Your task to perform on an android device: turn pop-ups off in chrome Image 0: 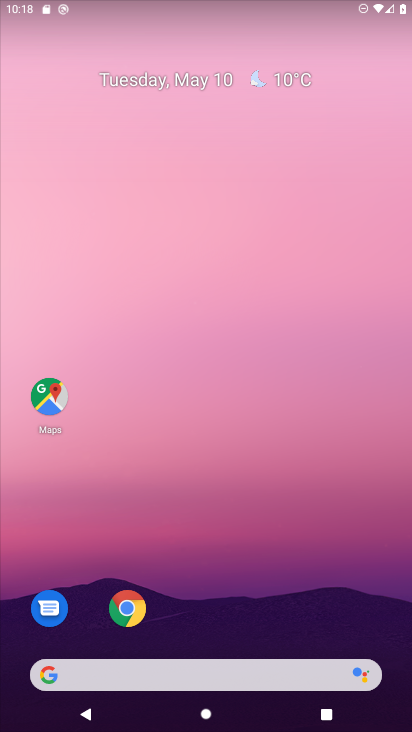
Step 0: drag from (355, 603) to (308, 75)
Your task to perform on an android device: turn pop-ups off in chrome Image 1: 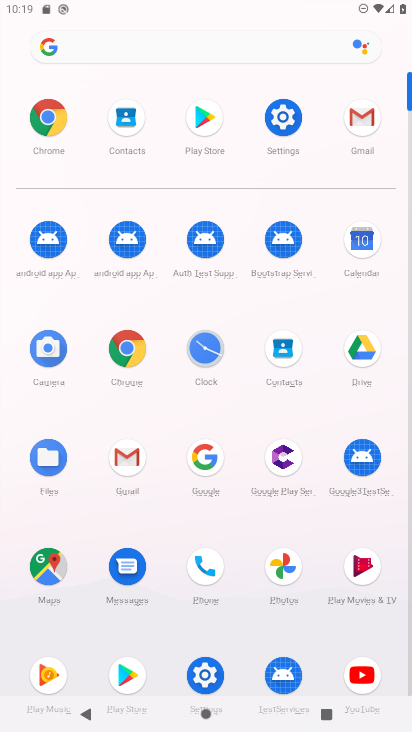
Step 1: click (119, 340)
Your task to perform on an android device: turn pop-ups off in chrome Image 2: 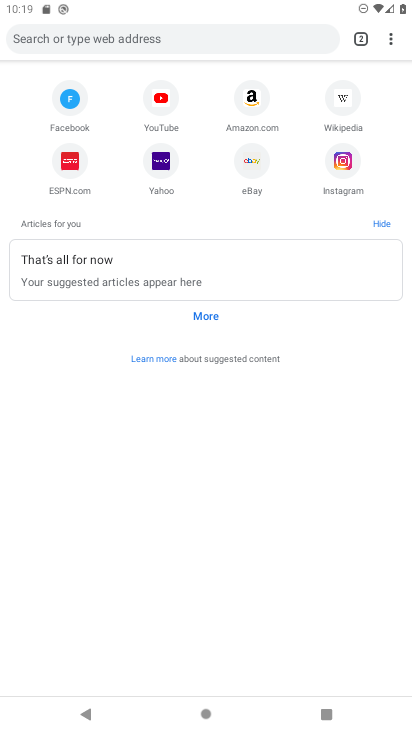
Step 2: click (386, 38)
Your task to perform on an android device: turn pop-ups off in chrome Image 3: 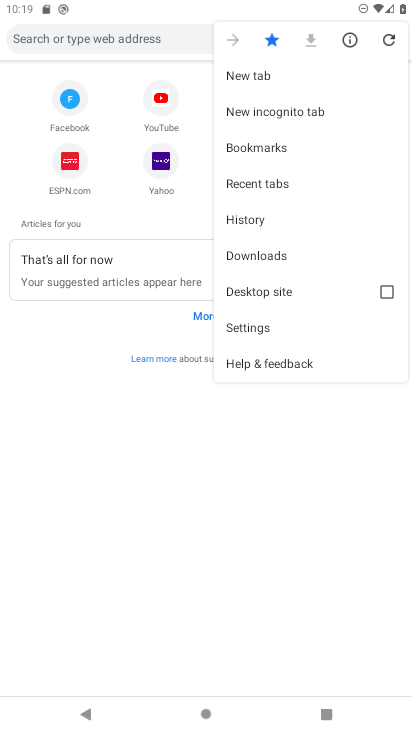
Step 3: click (265, 338)
Your task to perform on an android device: turn pop-ups off in chrome Image 4: 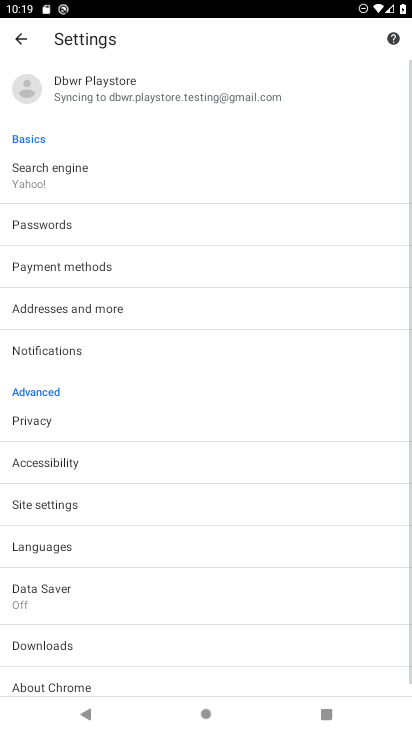
Step 4: click (62, 506)
Your task to perform on an android device: turn pop-ups off in chrome Image 5: 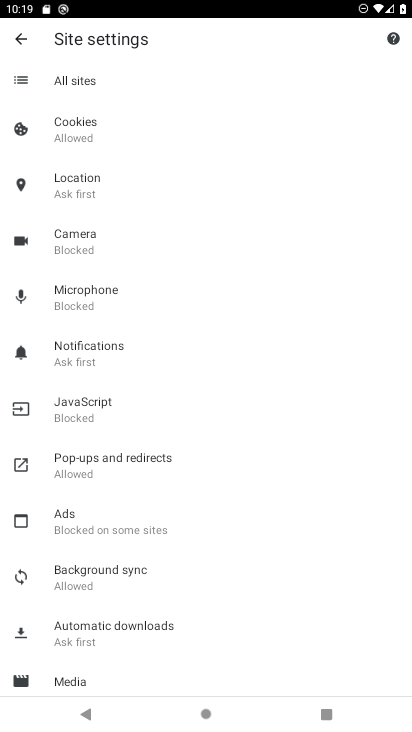
Step 5: click (92, 455)
Your task to perform on an android device: turn pop-ups off in chrome Image 6: 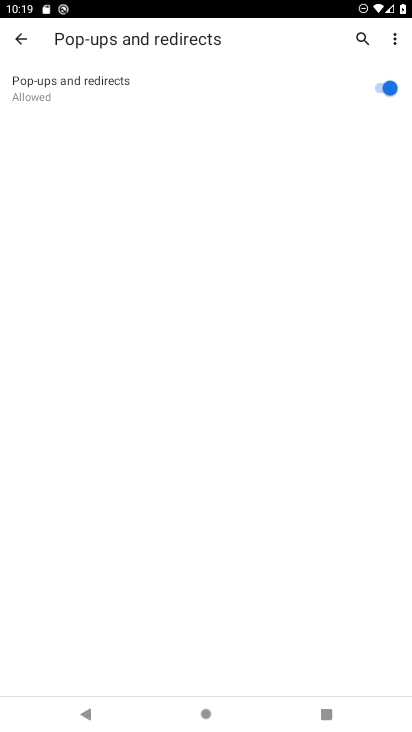
Step 6: click (379, 88)
Your task to perform on an android device: turn pop-ups off in chrome Image 7: 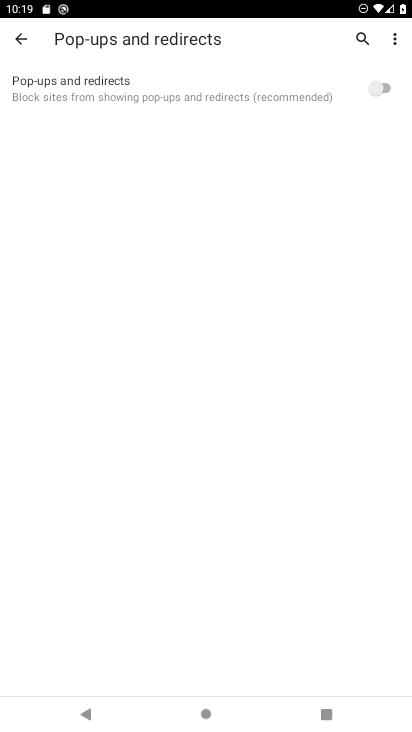
Step 7: task complete